Your task to perform on an android device: Go to ESPN.com Image 0: 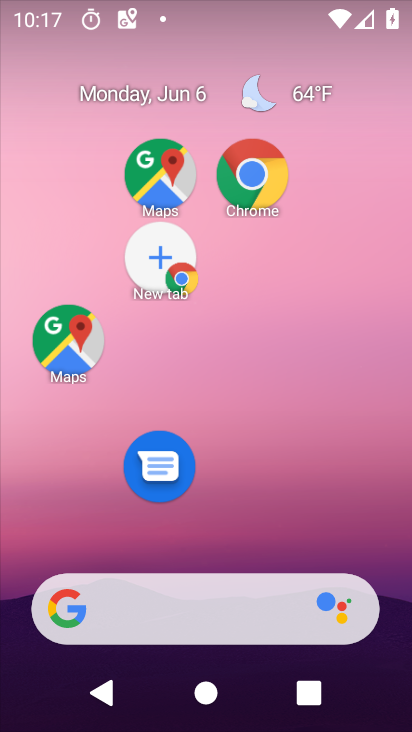
Step 0: drag from (260, 692) to (394, 32)
Your task to perform on an android device: Go to ESPN.com Image 1: 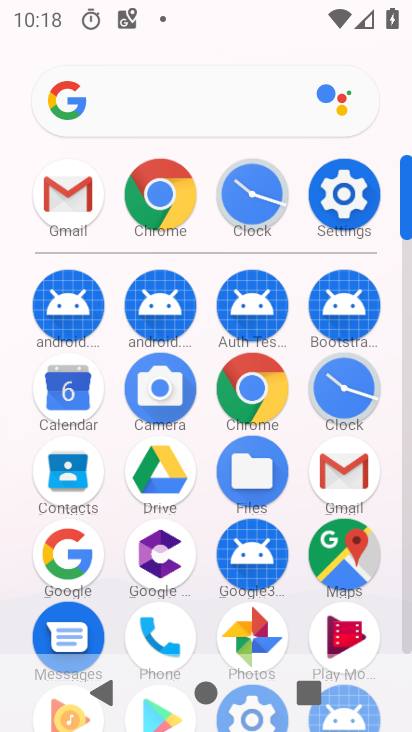
Step 1: click (149, 311)
Your task to perform on an android device: Go to ESPN.com Image 2: 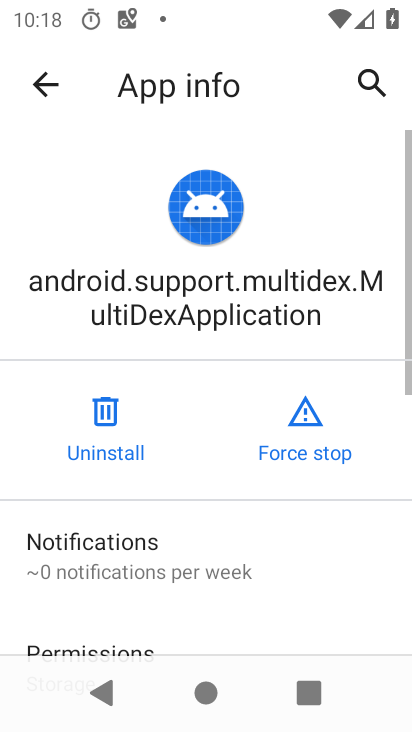
Step 2: click (162, 301)
Your task to perform on an android device: Go to ESPN.com Image 3: 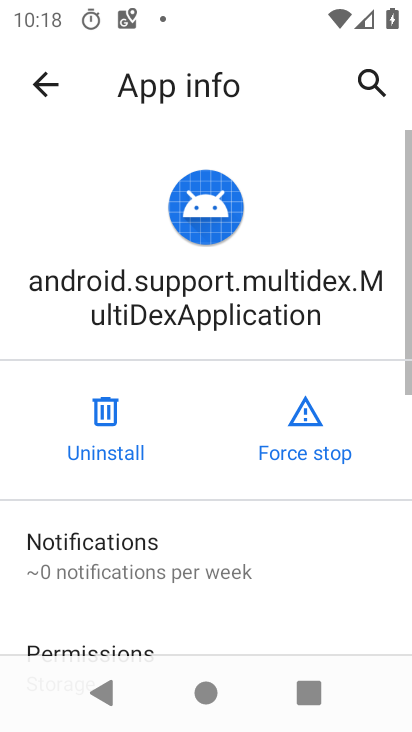
Step 3: click (167, 200)
Your task to perform on an android device: Go to ESPN.com Image 4: 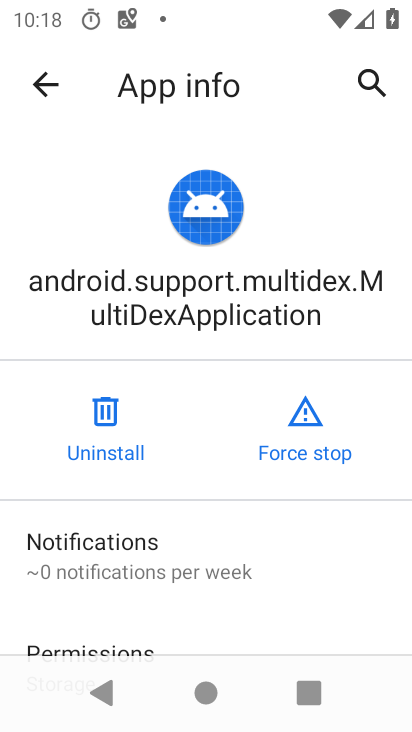
Step 4: click (167, 200)
Your task to perform on an android device: Go to ESPN.com Image 5: 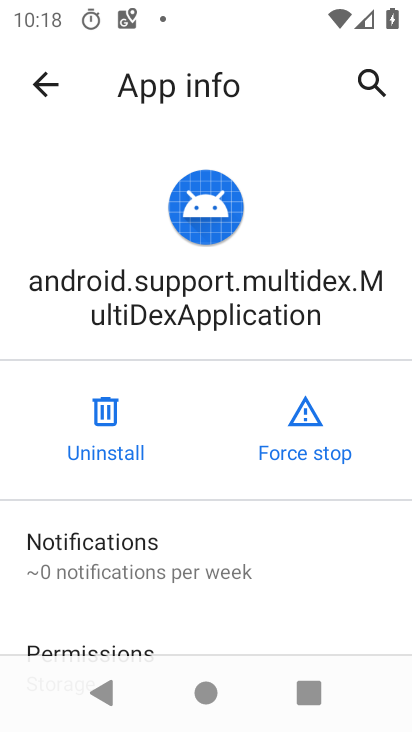
Step 5: click (50, 90)
Your task to perform on an android device: Go to ESPN.com Image 6: 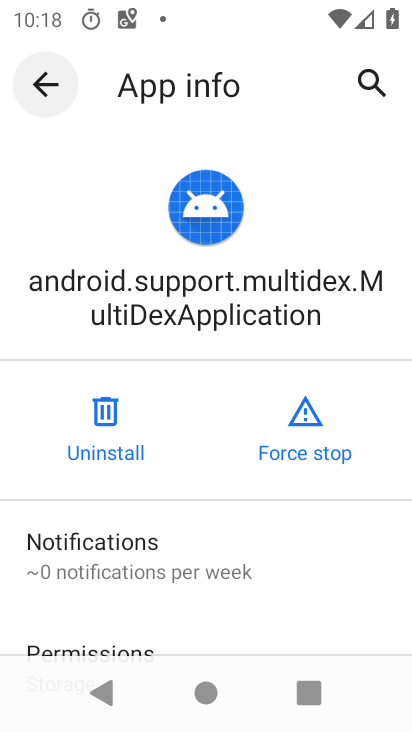
Step 6: click (50, 90)
Your task to perform on an android device: Go to ESPN.com Image 7: 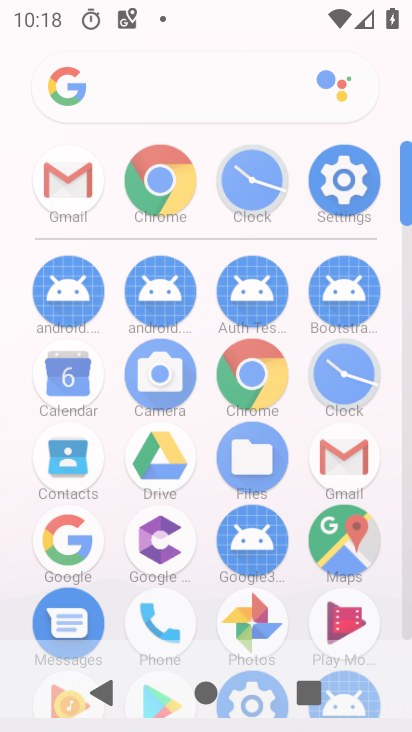
Step 7: click (50, 90)
Your task to perform on an android device: Go to ESPN.com Image 8: 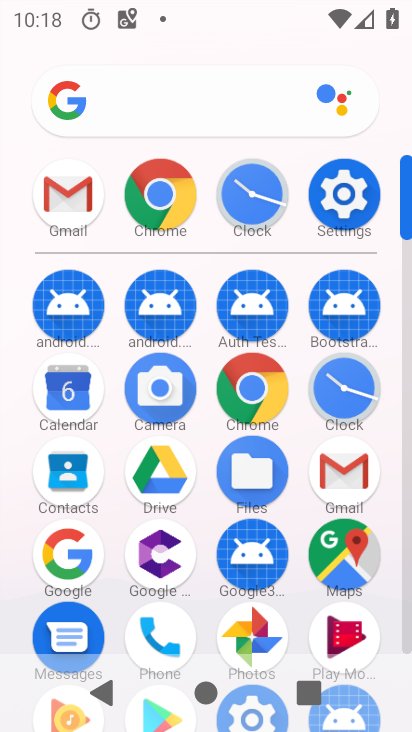
Step 8: click (50, 90)
Your task to perform on an android device: Go to ESPN.com Image 9: 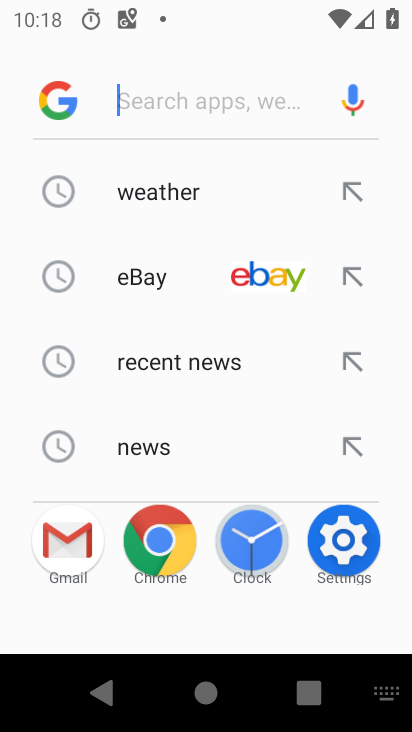
Step 9: click (153, 539)
Your task to perform on an android device: Go to ESPN.com Image 10: 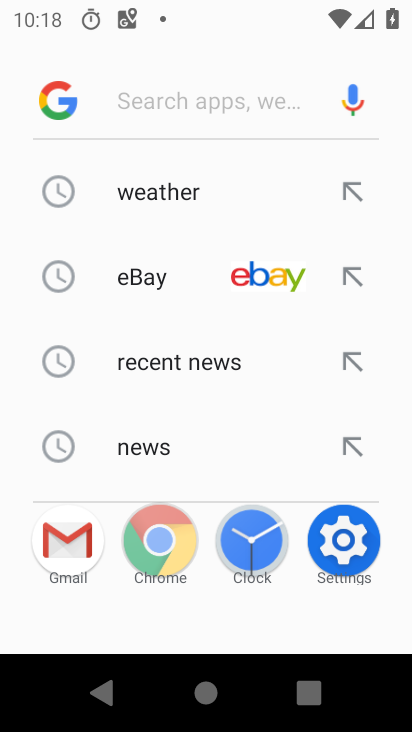
Step 10: click (156, 530)
Your task to perform on an android device: Go to ESPN.com Image 11: 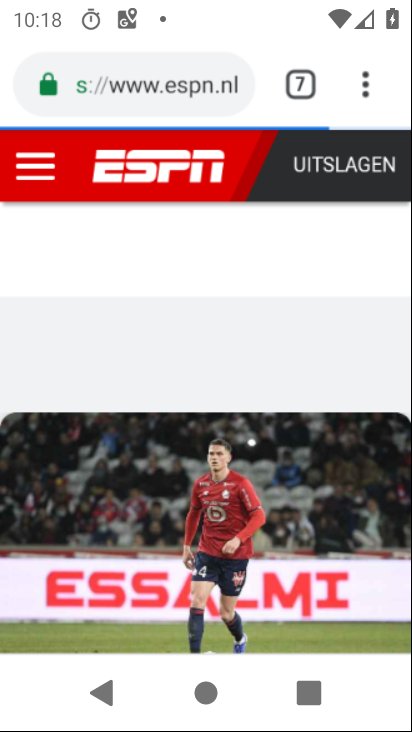
Step 11: task complete